Your task to perform on an android device: Open notification settings Image 0: 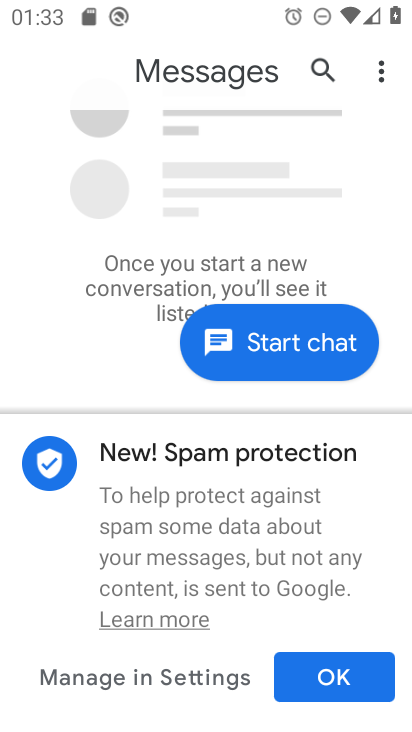
Step 0: press home button
Your task to perform on an android device: Open notification settings Image 1: 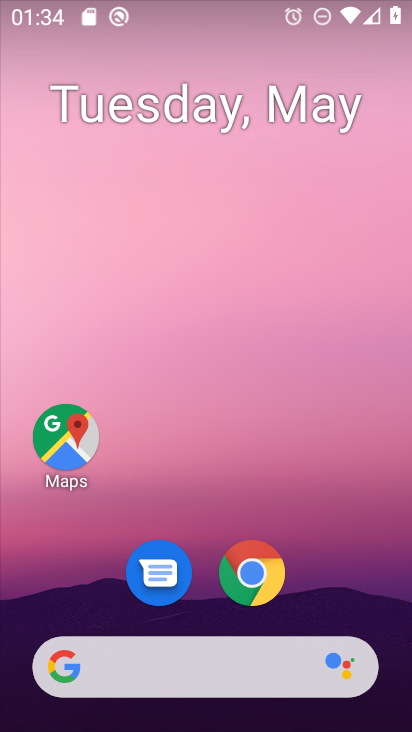
Step 1: drag from (134, 625) to (149, 187)
Your task to perform on an android device: Open notification settings Image 2: 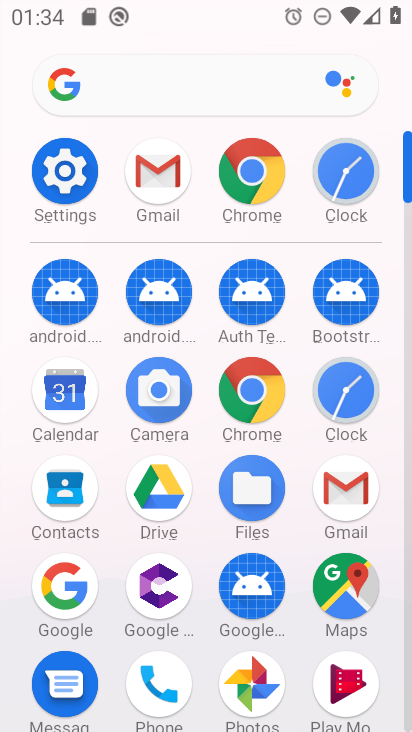
Step 2: click (58, 163)
Your task to perform on an android device: Open notification settings Image 3: 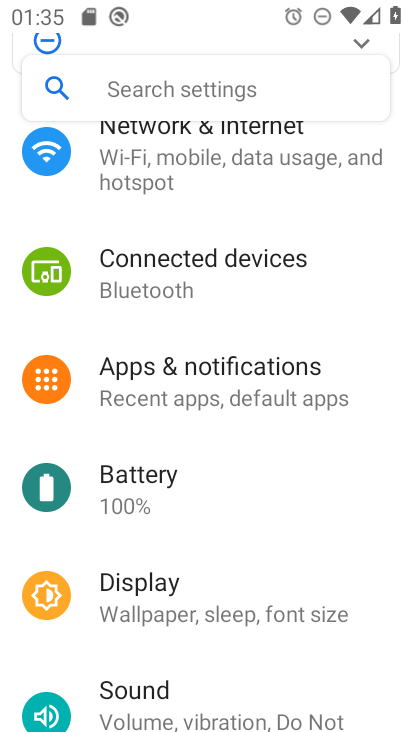
Step 3: click (206, 393)
Your task to perform on an android device: Open notification settings Image 4: 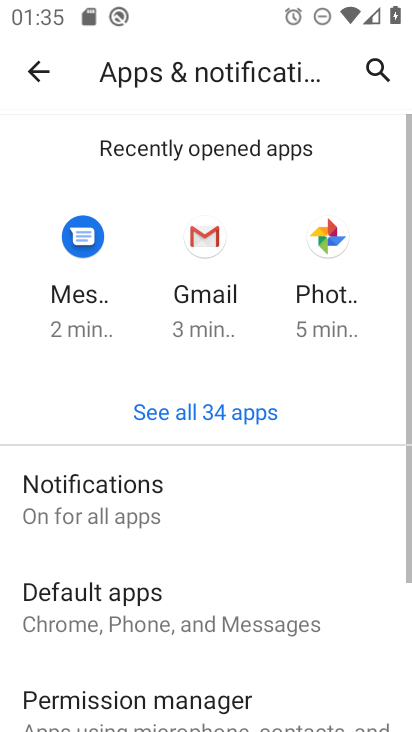
Step 4: task complete